Your task to perform on an android device: Go to internet settings Image 0: 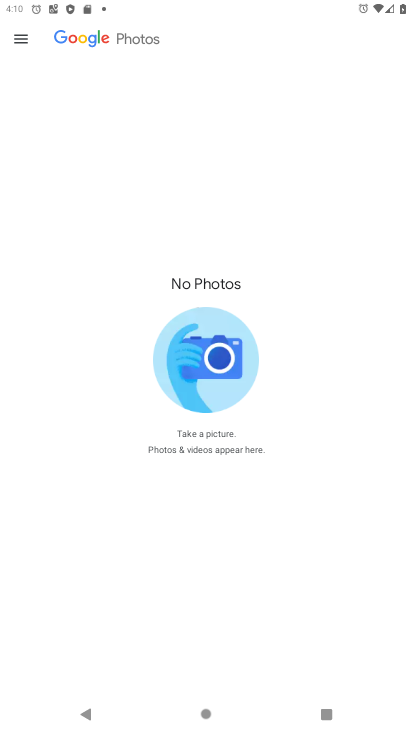
Step 0: press home button
Your task to perform on an android device: Go to internet settings Image 1: 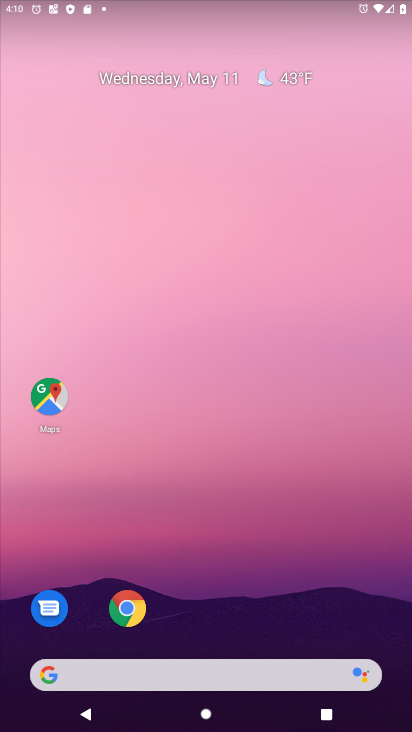
Step 1: drag from (239, 687) to (241, 266)
Your task to perform on an android device: Go to internet settings Image 2: 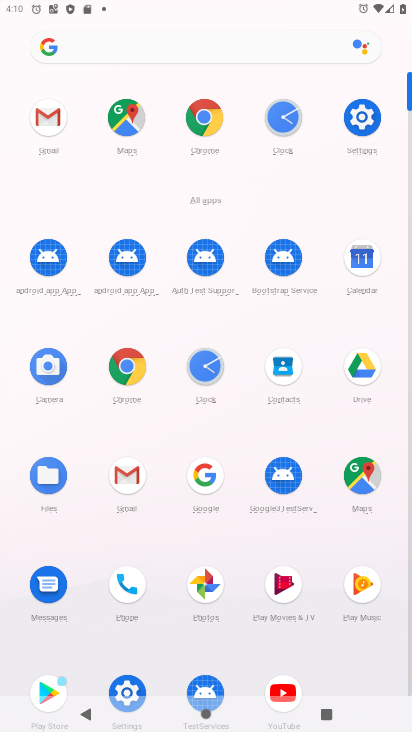
Step 2: click (364, 104)
Your task to perform on an android device: Go to internet settings Image 3: 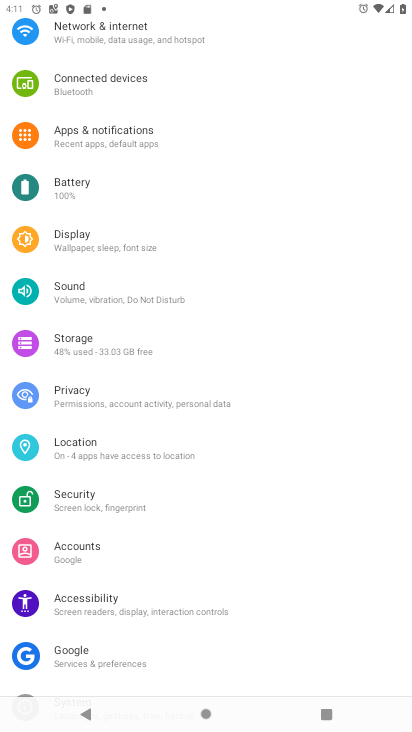
Step 3: drag from (155, 117) to (154, 537)
Your task to perform on an android device: Go to internet settings Image 4: 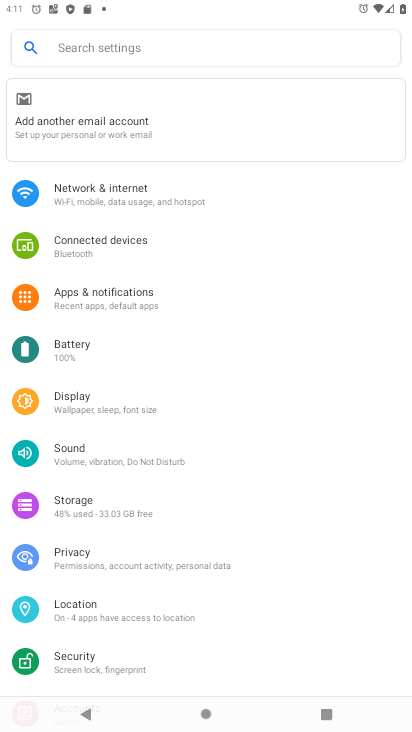
Step 4: click (118, 194)
Your task to perform on an android device: Go to internet settings Image 5: 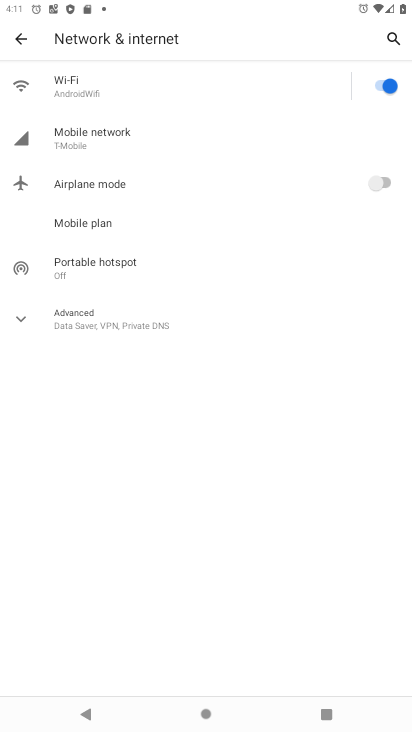
Step 5: task complete